Your task to perform on an android device: Open the phone app and click the voicemail tab. Image 0: 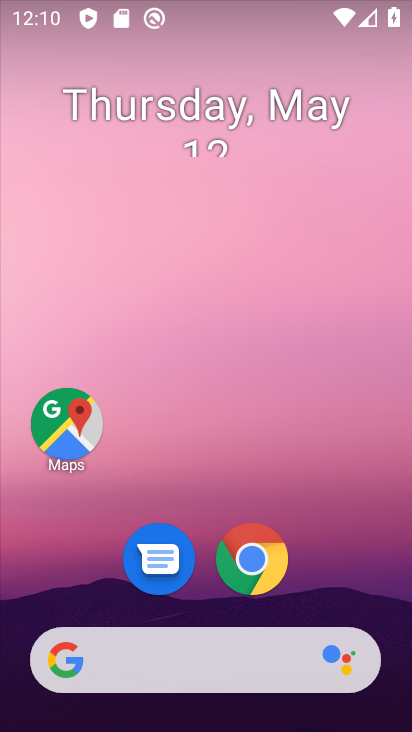
Step 0: drag from (56, 611) to (108, 287)
Your task to perform on an android device: Open the phone app and click the voicemail tab. Image 1: 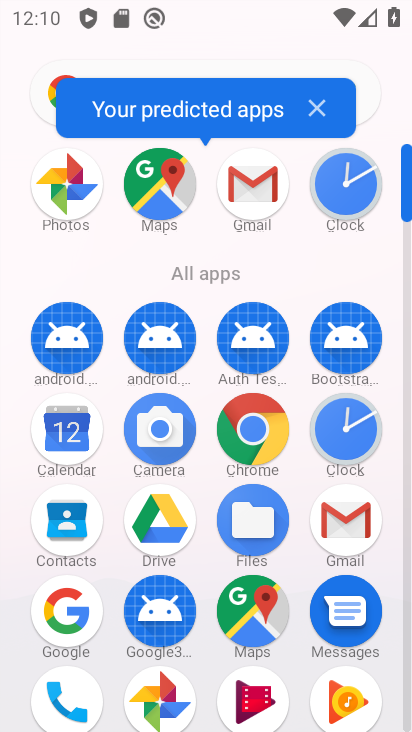
Step 1: drag from (165, 657) to (230, 346)
Your task to perform on an android device: Open the phone app and click the voicemail tab. Image 2: 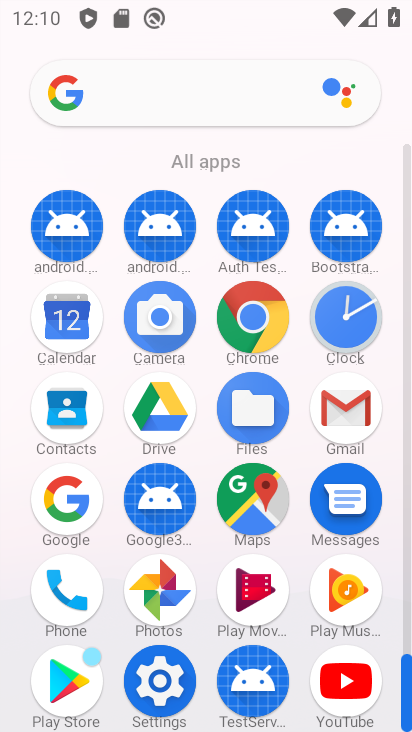
Step 2: click (74, 588)
Your task to perform on an android device: Open the phone app and click the voicemail tab. Image 3: 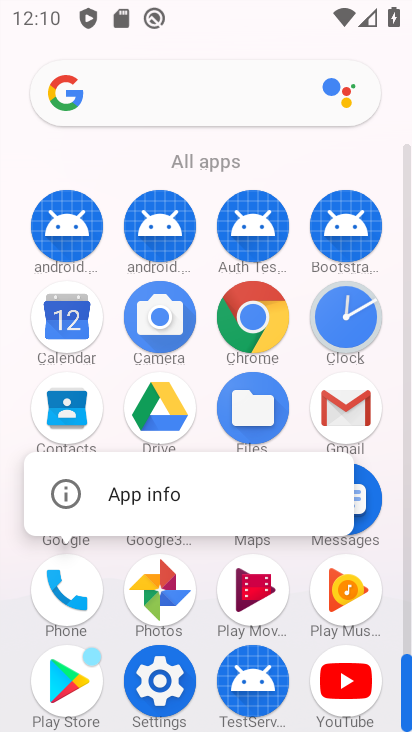
Step 3: click (67, 588)
Your task to perform on an android device: Open the phone app and click the voicemail tab. Image 4: 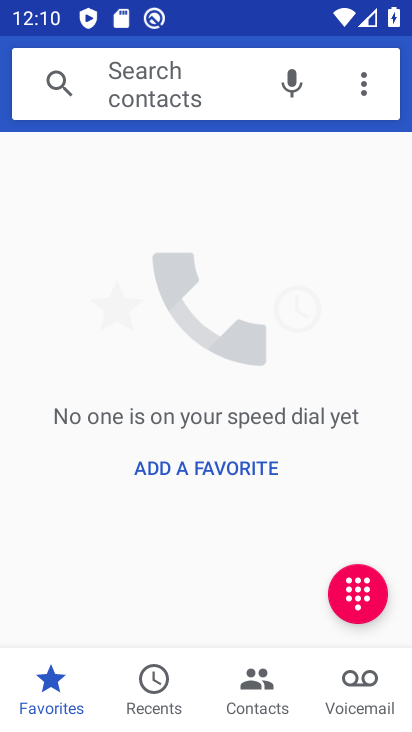
Step 4: click (367, 699)
Your task to perform on an android device: Open the phone app and click the voicemail tab. Image 5: 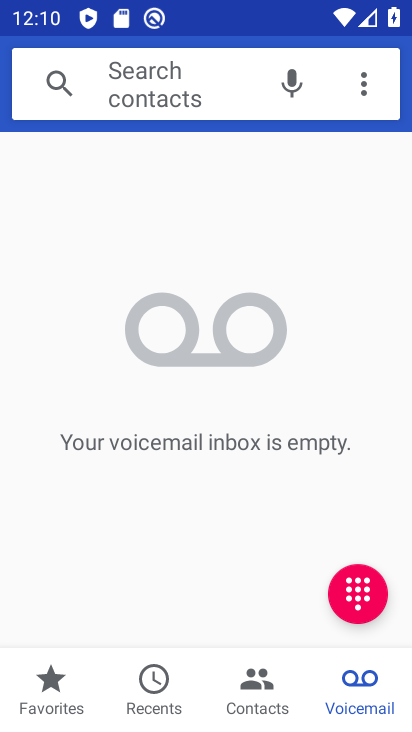
Step 5: task complete